Your task to perform on an android device: install app "Life360: Find Family & Friends" Image 0: 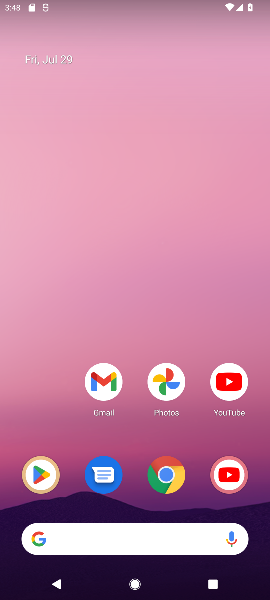
Step 0: click (45, 464)
Your task to perform on an android device: install app "Life360: Find Family & Friends" Image 1: 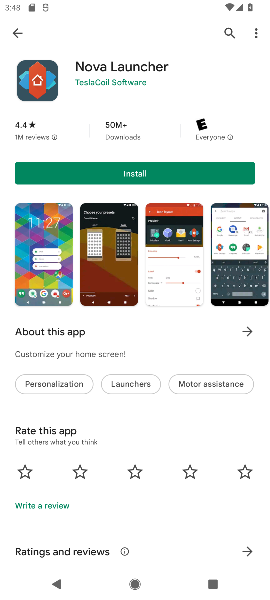
Step 1: click (15, 30)
Your task to perform on an android device: install app "Life360: Find Family & Friends" Image 2: 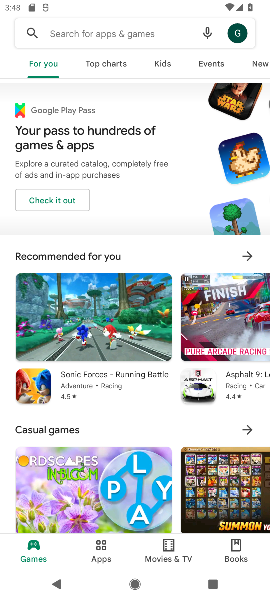
Step 2: click (58, 27)
Your task to perform on an android device: install app "Life360: Find Family & Friends" Image 3: 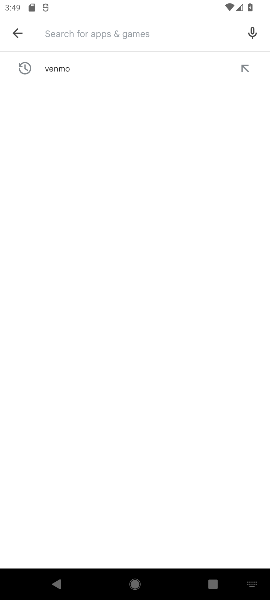
Step 3: type "Life360: Find Family & Friends"
Your task to perform on an android device: install app "Life360: Find Family & Friends" Image 4: 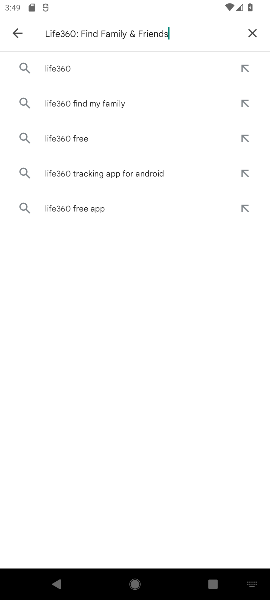
Step 4: type ""
Your task to perform on an android device: install app "Life360: Find Family & Friends" Image 5: 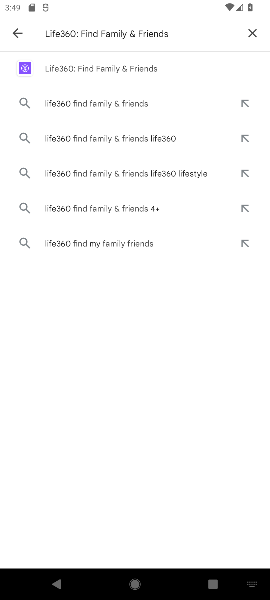
Step 5: click (99, 66)
Your task to perform on an android device: install app "Life360: Find Family & Friends" Image 6: 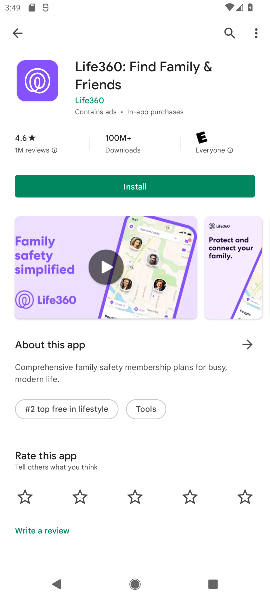
Step 6: click (197, 190)
Your task to perform on an android device: install app "Life360: Find Family & Friends" Image 7: 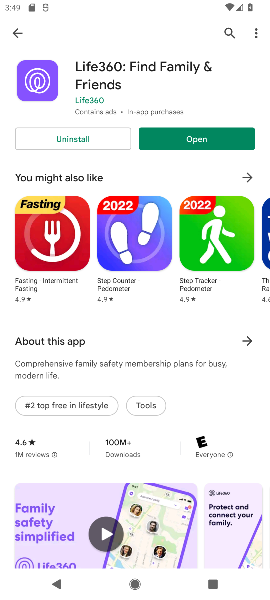
Step 7: click (235, 143)
Your task to perform on an android device: install app "Life360: Find Family & Friends" Image 8: 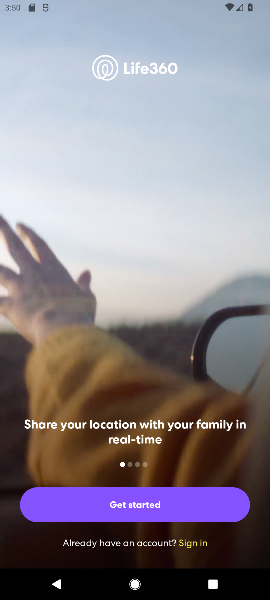
Step 8: task complete